Your task to perform on an android device: What's on my calendar today? Image 0: 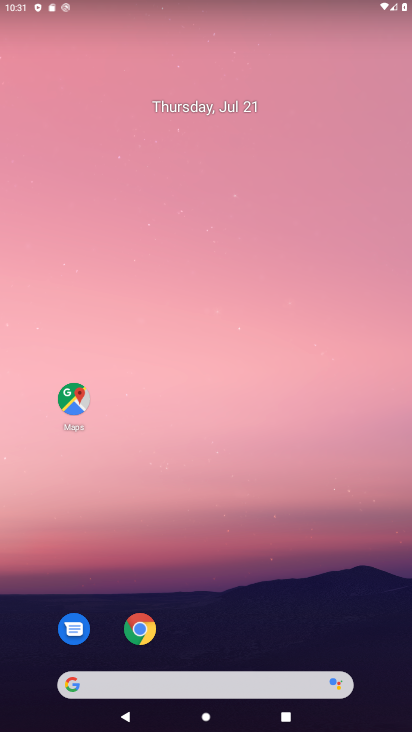
Step 0: click (257, 19)
Your task to perform on an android device: What's on my calendar today? Image 1: 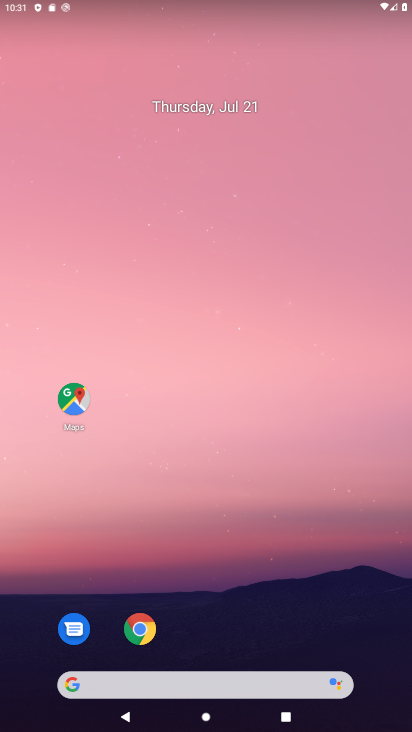
Step 1: drag from (205, 649) to (232, 82)
Your task to perform on an android device: What's on my calendar today? Image 2: 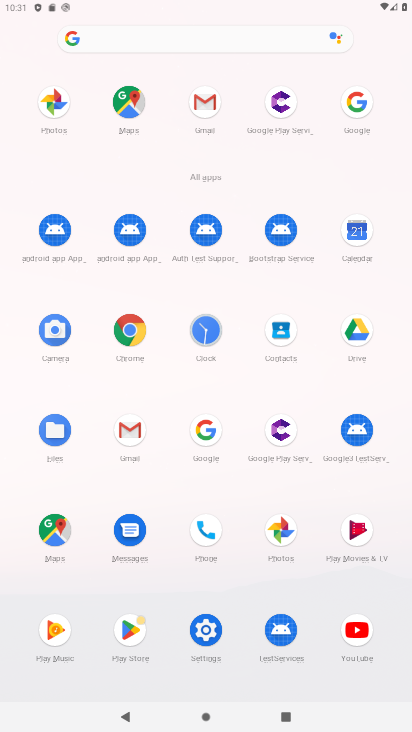
Step 2: click (355, 234)
Your task to perform on an android device: What's on my calendar today? Image 3: 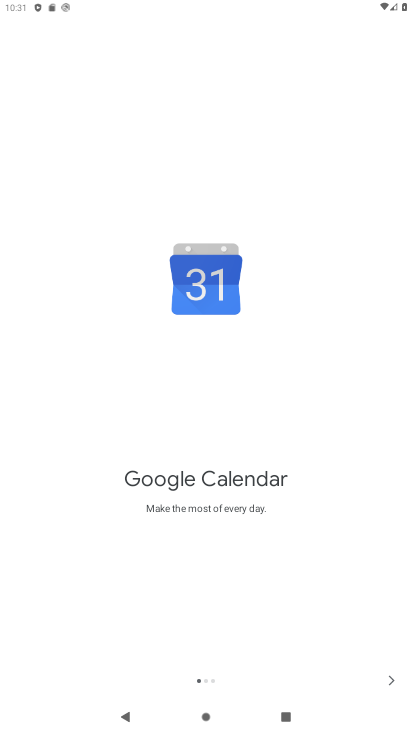
Step 3: click (393, 679)
Your task to perform on an android device: What's on my calendar today? Image 4: 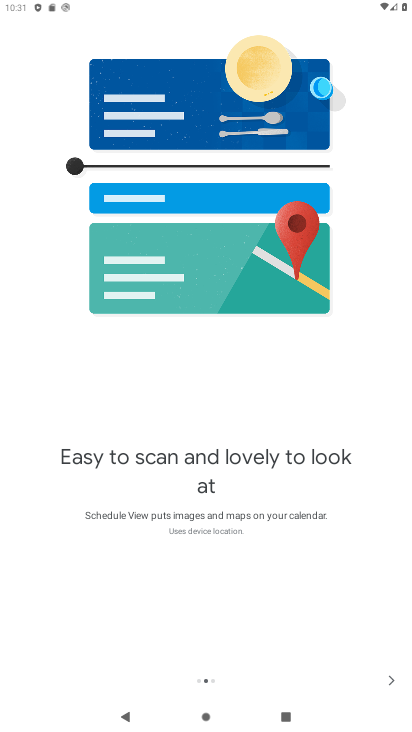
Step 4: click (393, 679)
Your task to perform on an android device: What's on my calendar today? Image 5: 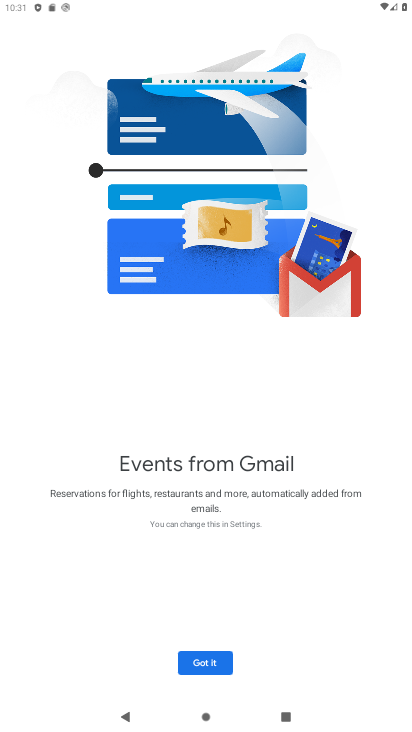
Step 5: click (209, 667)
Your task to perform on an android device: What's on my calendar today? Image 6: 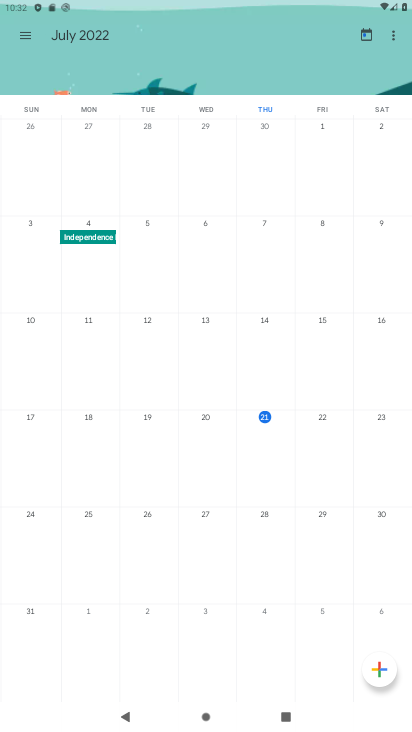
Step 6: click (268, 418)
Your task to perform on an android device: What's on my calendar today? Image 7: 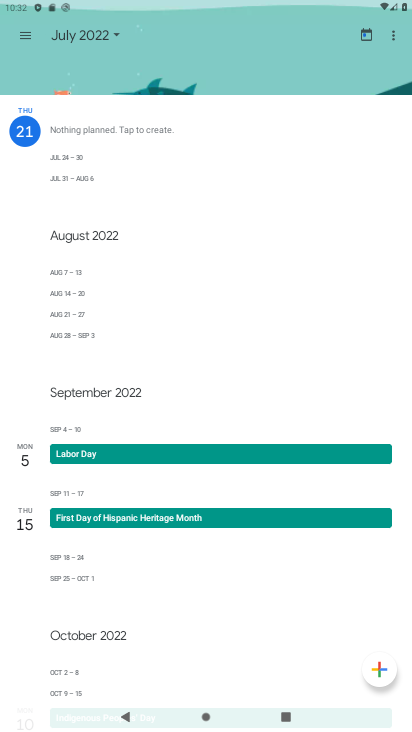
Step 7: task complete